Your task to perform on an android device: find which apps use the phone's location Image 0: 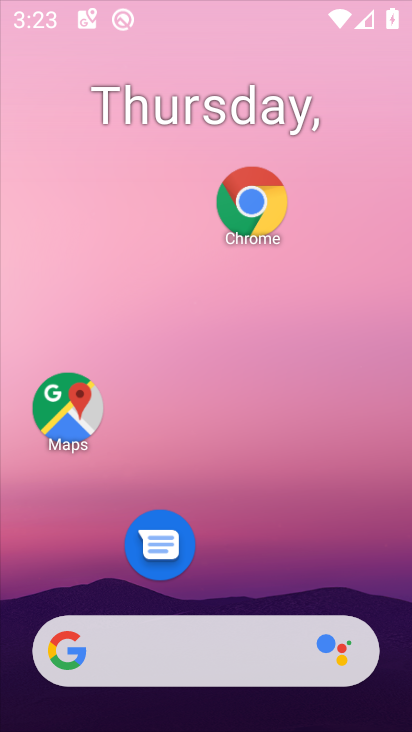
Step 0: drag from (183, 622) to (174, 273)
Your task to perform on an android device: find which apps use the phone's location Image 1: 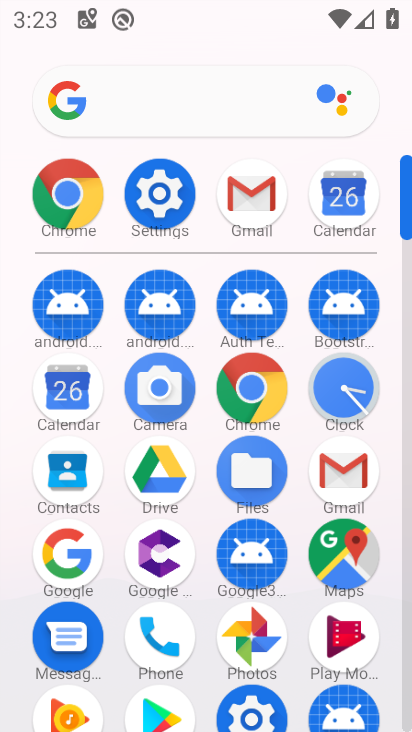
Step 1: press home button
Your task to perform on an android device: find which apps use the phone's location Image 2: 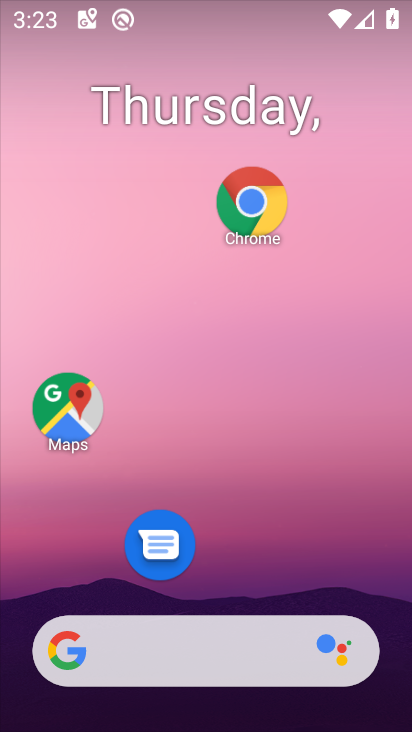
Step 2: drag from (127, 621) to (148, 351)
Your task to perform on an android device: find which apps use the phone's location Image 3: 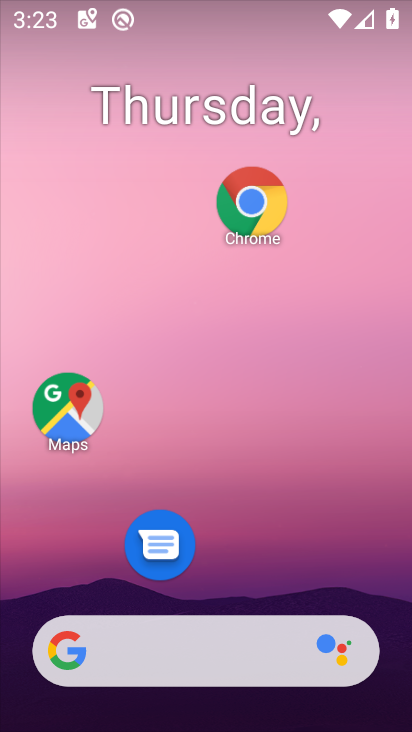
Step 3: drag from (196, 598) to (196, 199)
Your task to perform on an android device: find which apps use the phone's location Image 4: 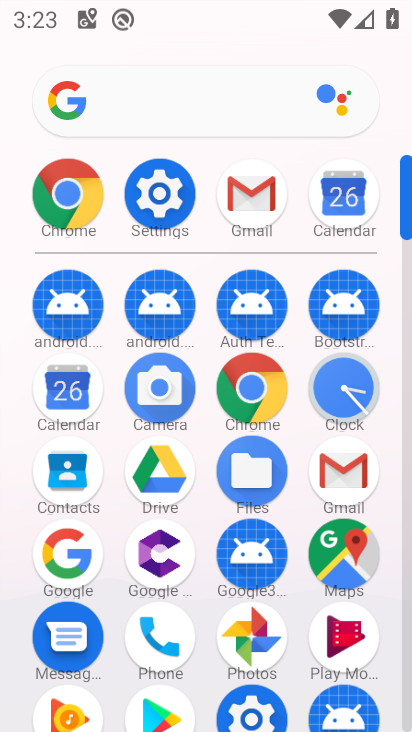
Step 4: click (168, 198)
Your task to perform on an android device: find which apps use the phone's location Image 5: 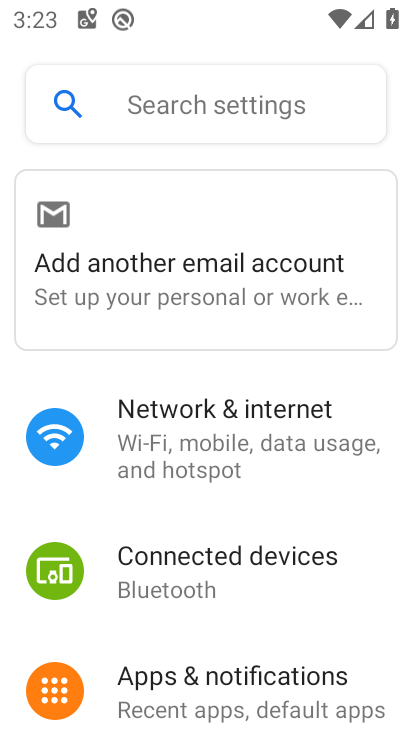
Step 5: drag from (149, 701) to (187, 294)
Your task to perform on an android device: find which apps use the phone's location Image 6: 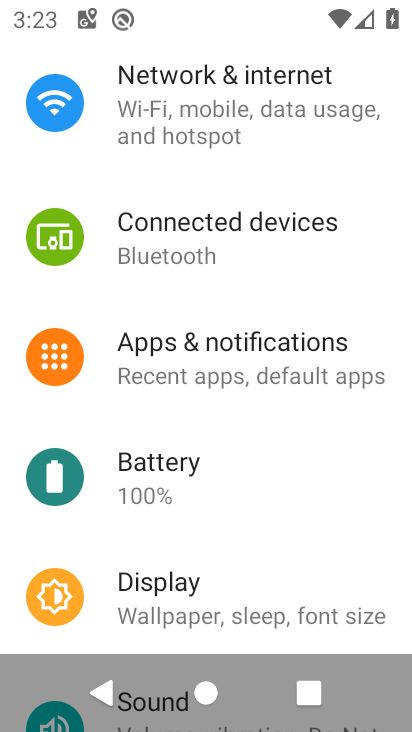
Step 6: drag from (177, 613) to (177, 323)
Your task to perform on an android device: find which apps use the phone's location Image 7: 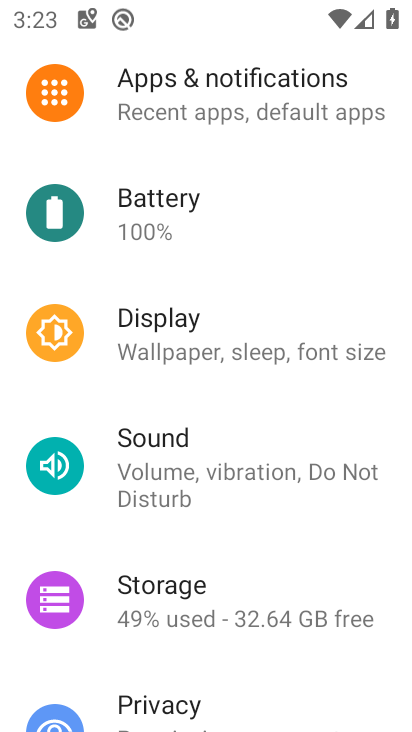
Step 7: drag from (166, 698) to (196, 386)
Your task to perform on an android device: find which apps use the phone's location Image 8: 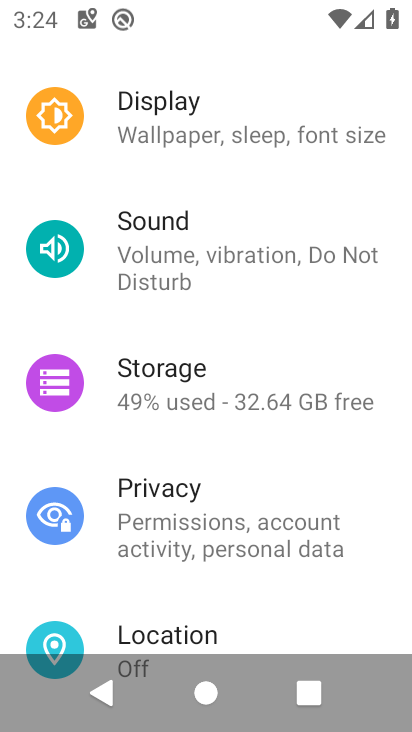
Step 8: click (176, 637)
Your task to perform on an android device: find which apps use the phone's location Image 9: 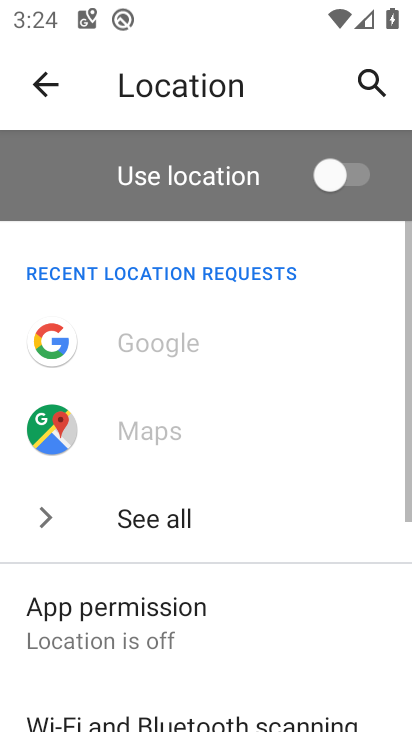
Step 9: click (123, 614)
Your task to perform on an android device: find which apps use the phone's location Image 10: 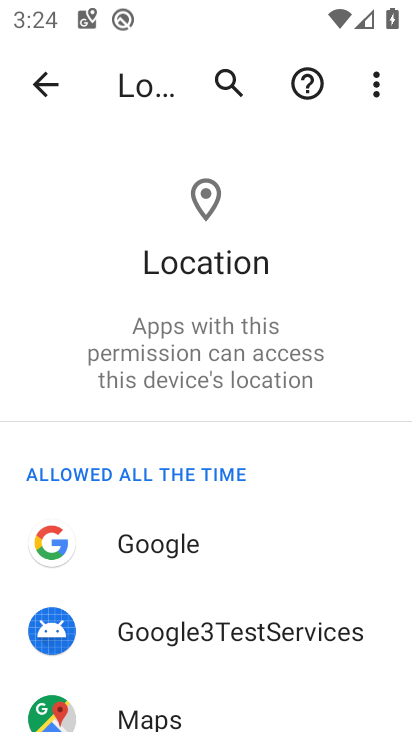
Step 10: task complete